Your task to perform on an android device: Open wifi settings Image 0: 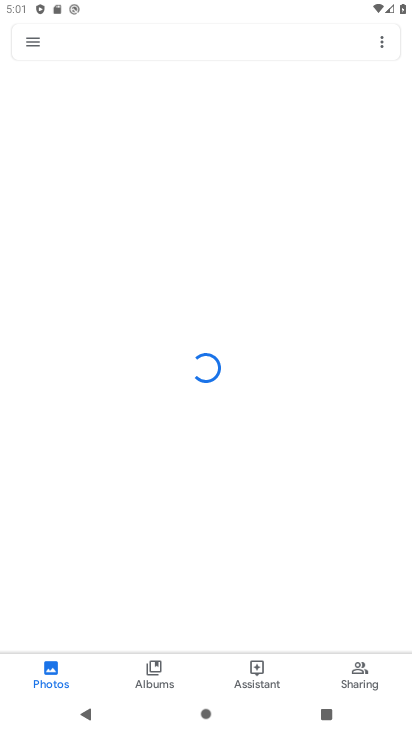
Step 0: press home button
Your task to perform on an android device: Open wifi settings Image 1: 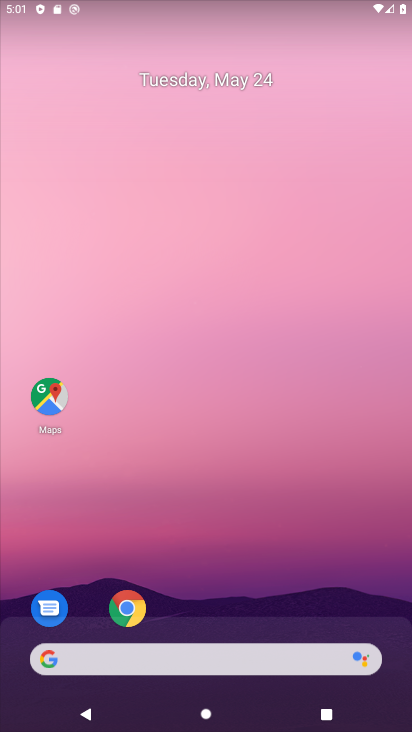
Step 1: drag from (194, 584) to (182, 282)
Your task to perform on an android device: Open wifi settings Image 2: 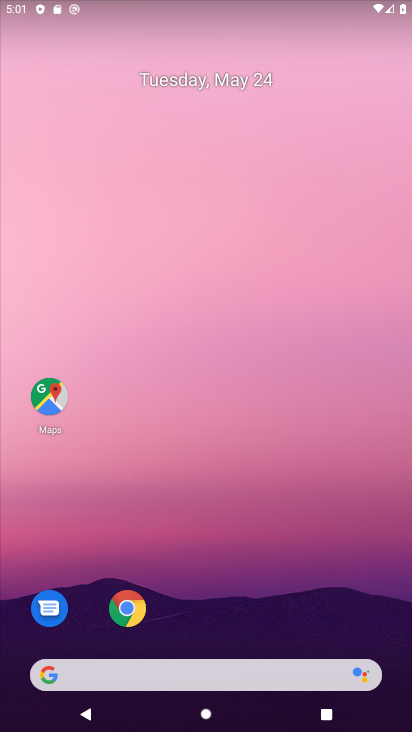
Step 2: drag from (212, 634) to (231, 59)
Your task to perform on an android device: Open wifi settings Image 3: 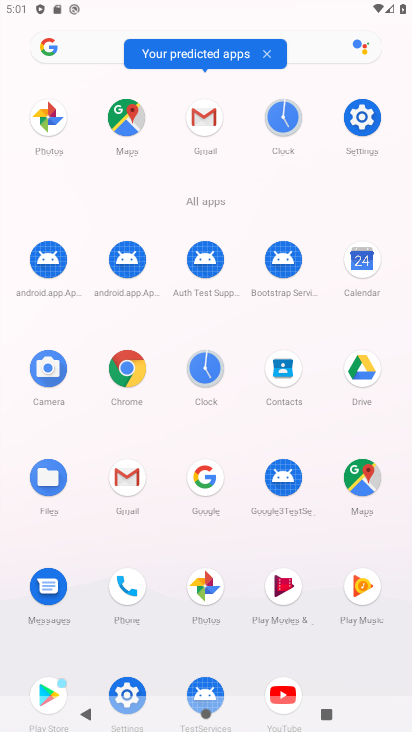
Step 3: click (367, 136)
Your task to perform on an android device: Open wifi settings Image 4: 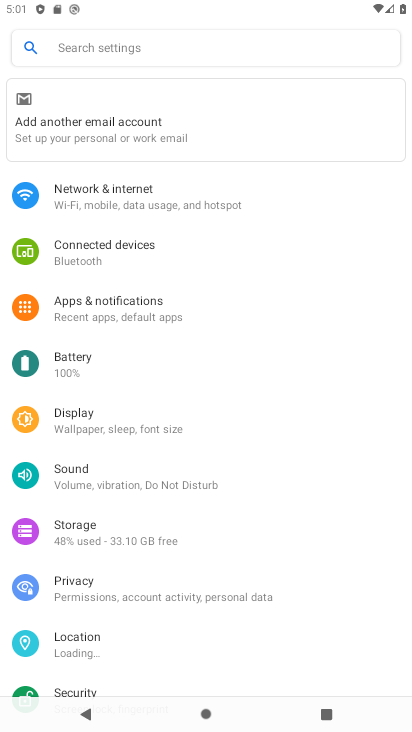
Step 4: click (126, 199)
Your task to perform on an android device: Open wifi settings Image 5: 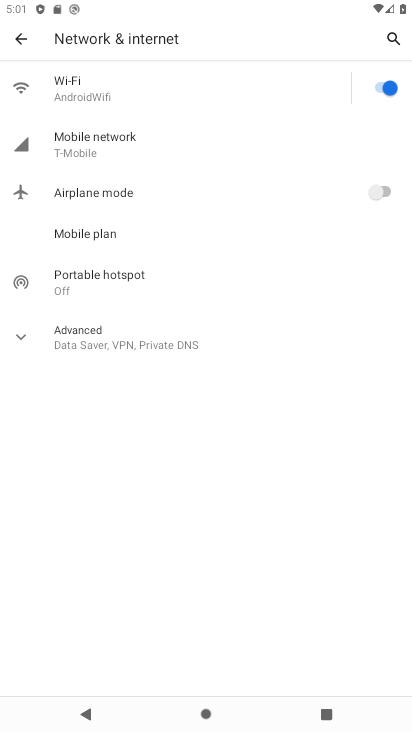
Step 5: task complete